Your task to perform on an android device: Open CNN.com Image 0: 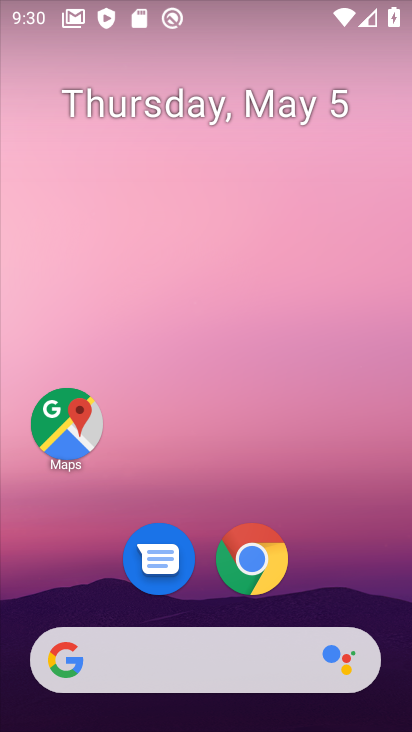
Step 0: click (278, 557)
Your task to perform on an android device: Open CNN.com Image 1: 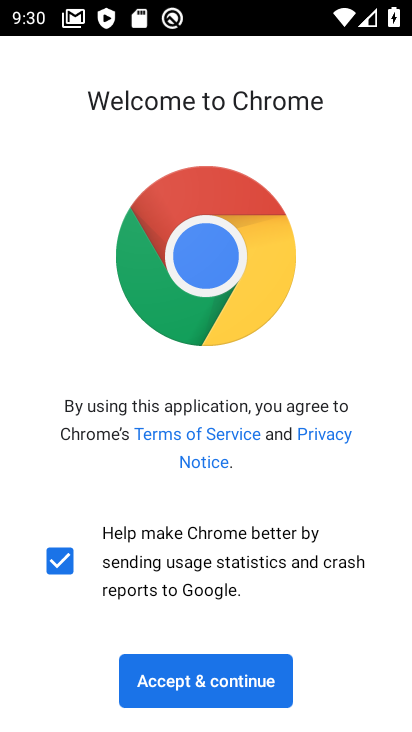
Step 1: click (211, 684)
Your task to perform on an android device: Open CNN.com Image 2: 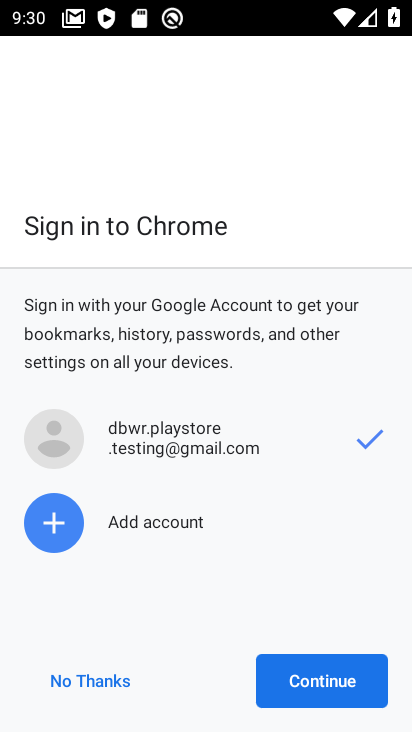
Step 2: click (352, 678)
Your task to perform on an android device: Open CNN.com Image 3: 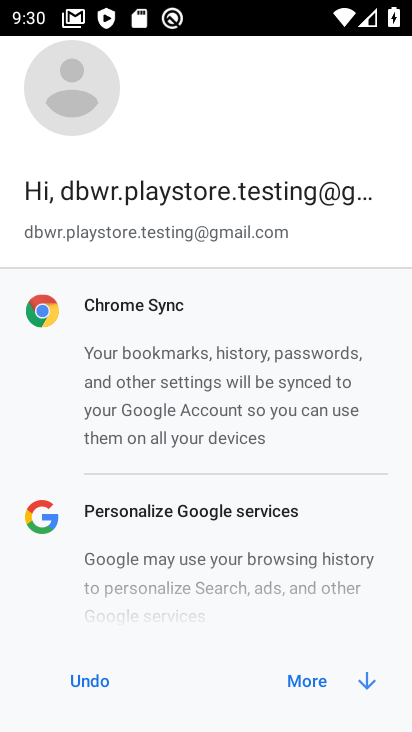
Step 3: click (313, 674)
Your task to perform on an android device: Open CNN.com Image 4: 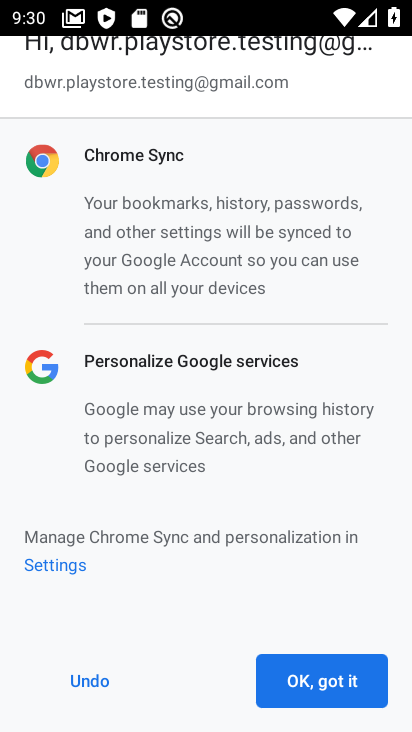
Step 4: click (313, 674)
Your task to perform on an android device: Open CNN.com Image 5: 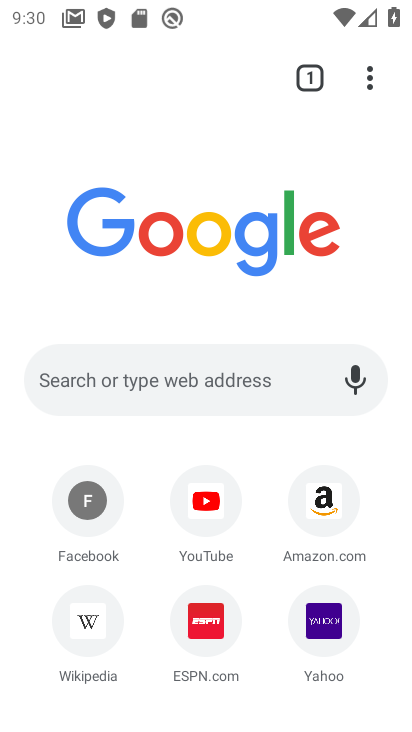
Step 5: drag from (390, 650) to (400, 266)
Your task to perform on an android device: Open CNN.com Image 6: 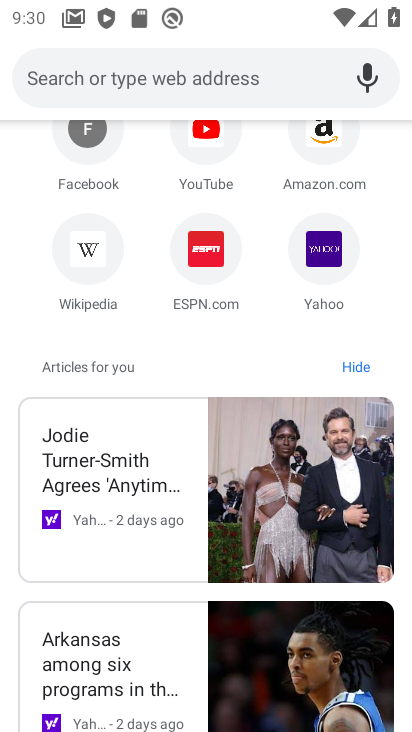
Step 6: drag from (400, 266) to (402, 650)
Your task to perform on an android device: Open CNN.com Image 7: 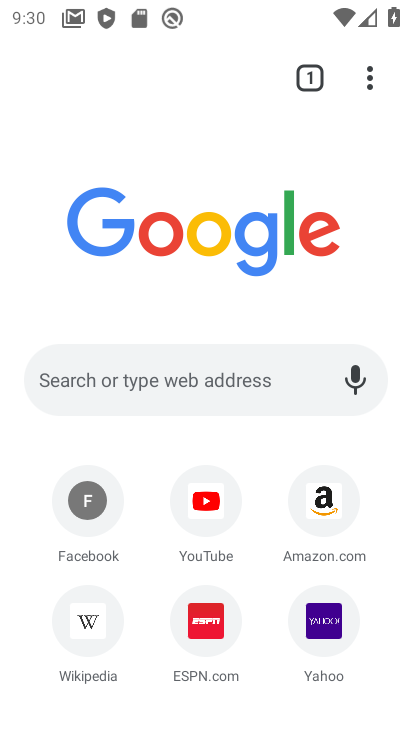
Step 7: click (152, 373)
Your task to perform on an android device: Open CNN.com Image 8: 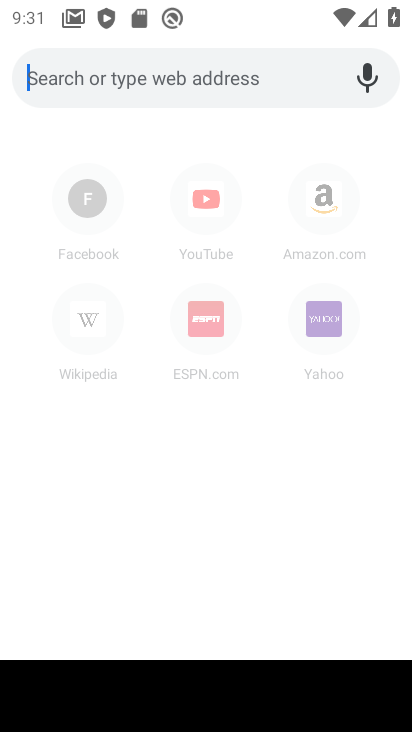
Step 8: type "cnn.com"
Your task to perform on an android device: Open CNN.com Image 9: 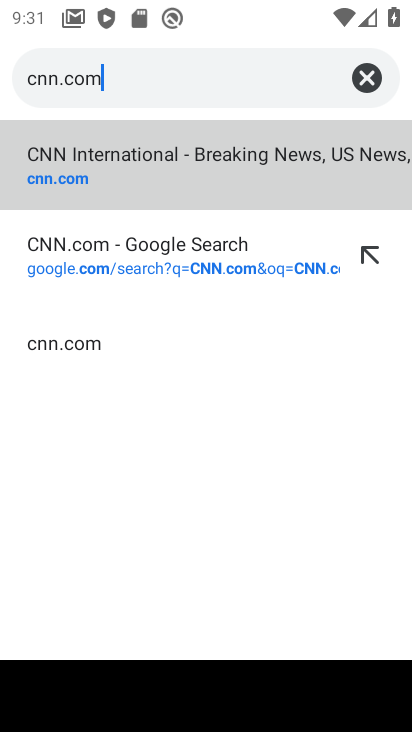
Step 9: click (120, 143)
Your task to perform on an android device: Open CNN.com Image 10: 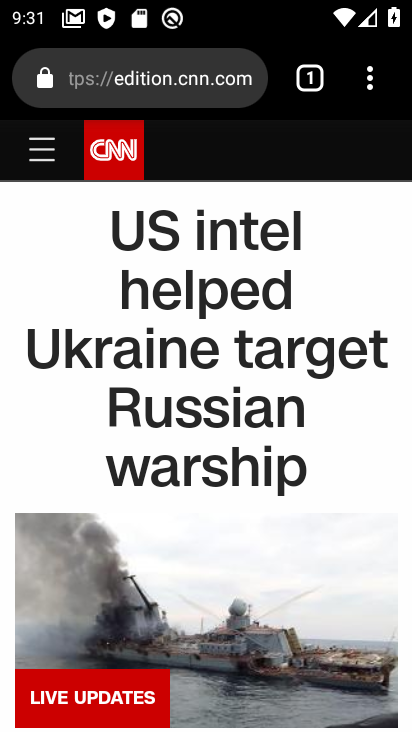
Step 10: task complete